Your task to perform on an android device: turn on translation in the chrome app Image 0: 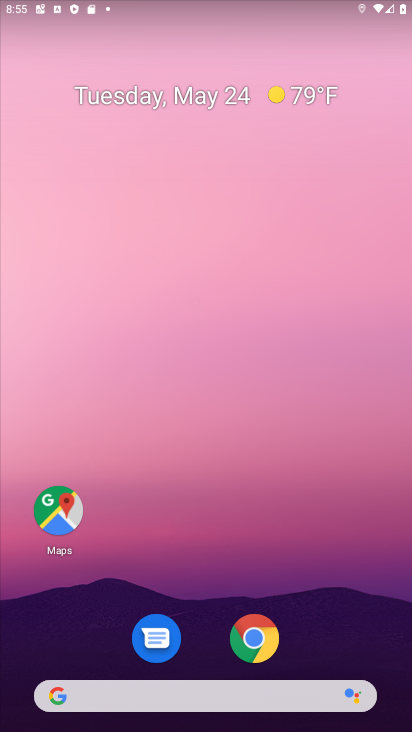
Step 0: click (249, 637)
Your task to perform on an android device: turn on translation in the chrome app Image 1: 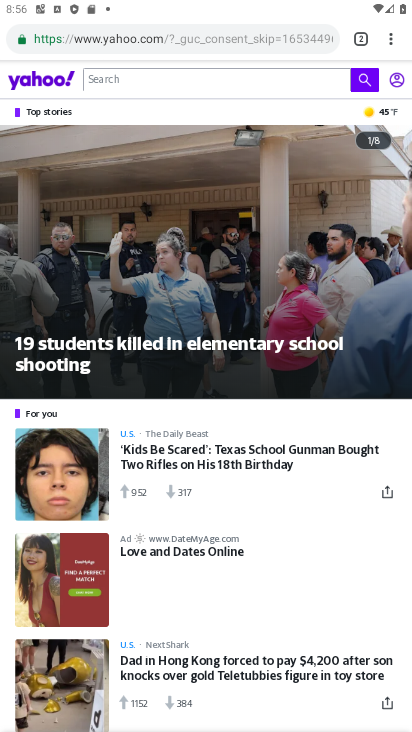
Step 1: click (387, 38)
Your task to perform on an android device: turn on translation in the chrome app Image 2: 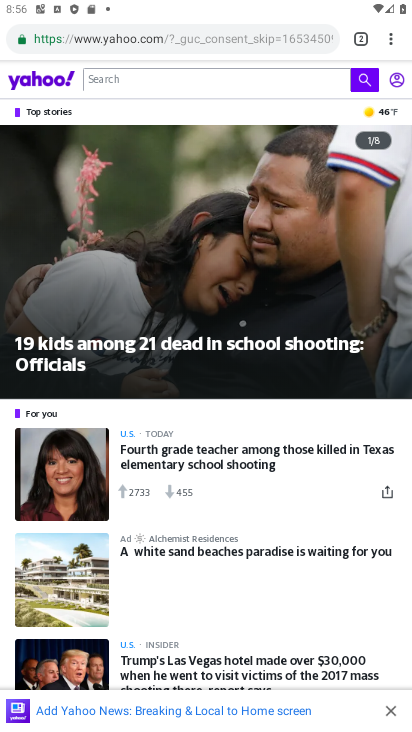
Step 2: click (393, 37)
Your task to perform on an android device: turn on translation in the chrome app Image 3: 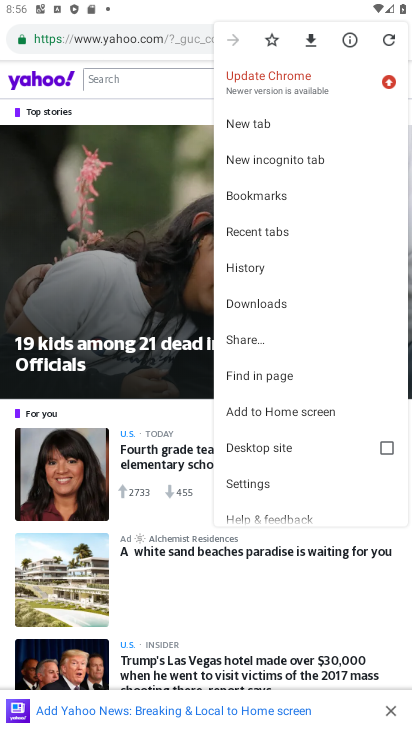
Step 3: click (287, 491)
Your task to perform on an android device: turn on translation in the chrome app Image 4: 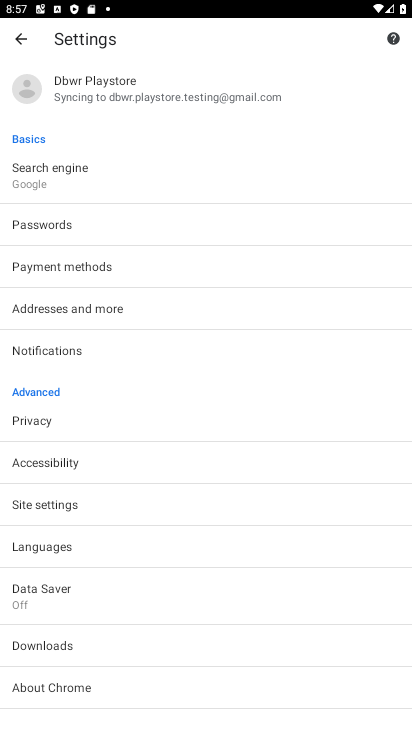
Step 4: click (22, 551)
Your task to perform on an android device: turn on translation in the chrome app Image 5: 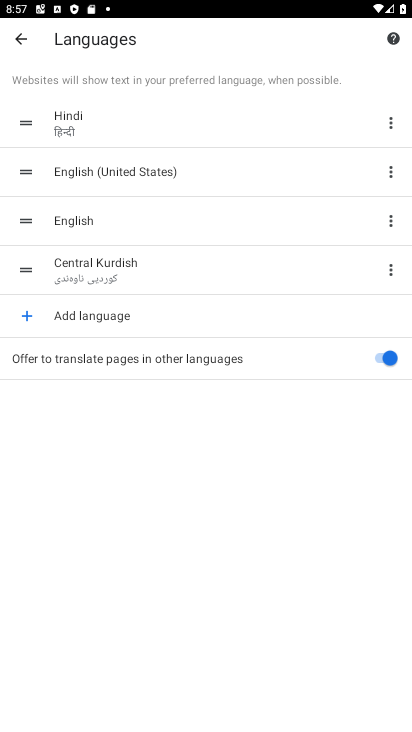
Step 5: task complete